Your task to perform on an android device: clear all cookies in the chrome app Image 0: 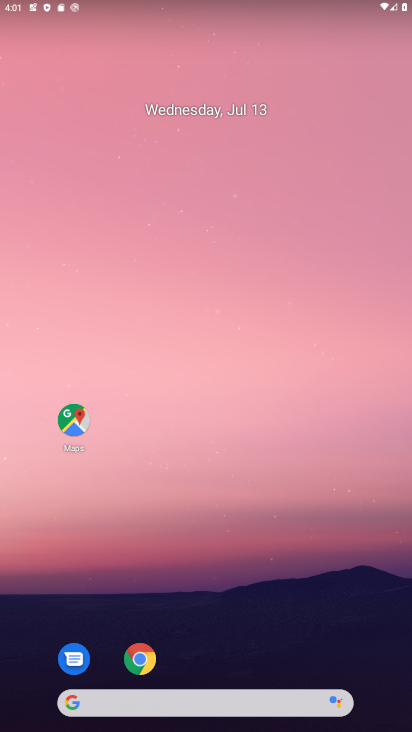
Step 0: press home button
Your task to perform on an android device: clear all cookies in the chrome app Image 1: 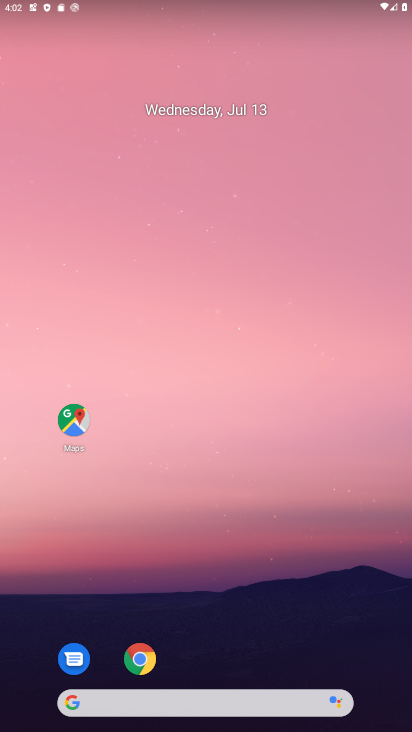
Step 1: press home button
Your task to perform on an android device: clear all cookies in the chrome app Image 2: 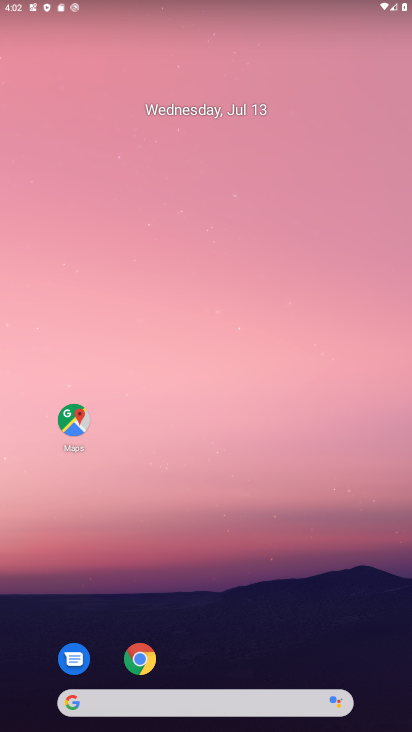
Step 2: click (139, 656)
Your task to perform on an android device: clear all cookies in the chrome app Image 3: 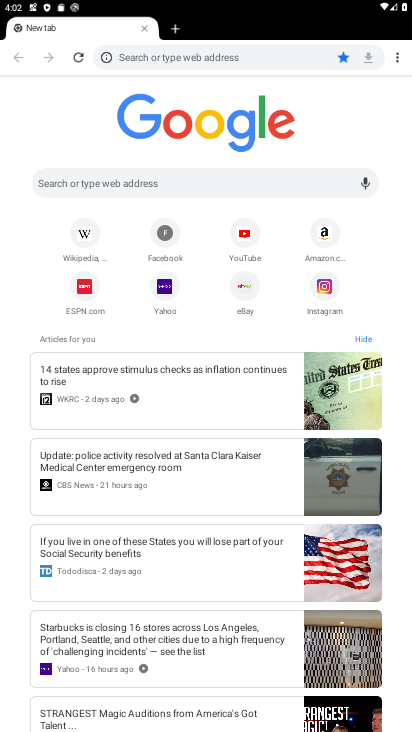
Step 3: click (398, 54)
Your task to perform on an android device: clear all cookies in the chrome app Image 4: 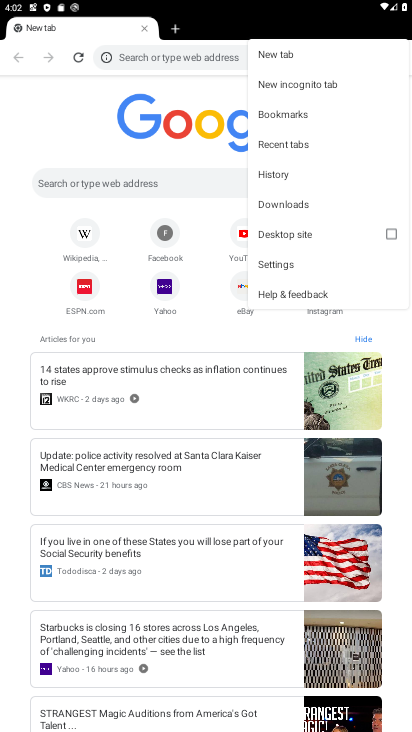
Step 4: click (290, 173)
Your task to perform on an android device: clear all cookies in the chrome app Image 5: 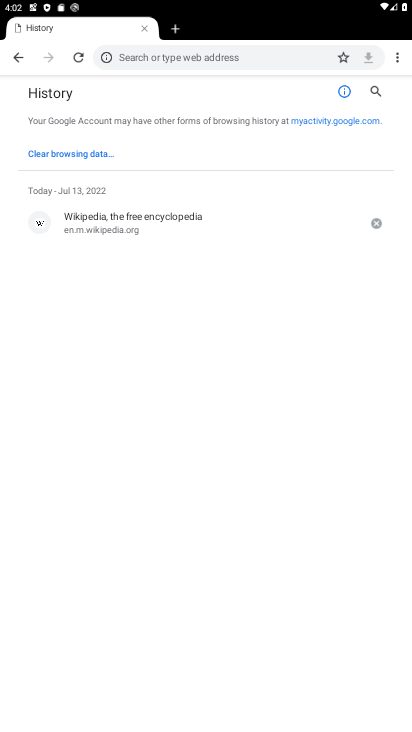
Step 5: click (64, 150)
Your task to perform on an android device: clear all cookies in the chrome app Image 6: 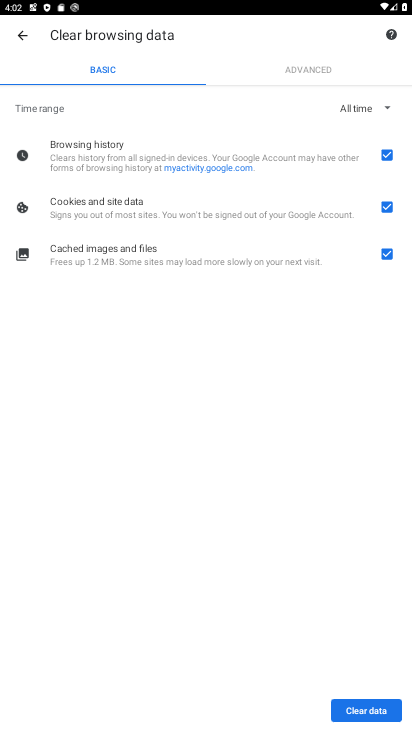
Step 6: click (364, 716)
Your task to perform on an android device: clear all cookies in the chrome app Image 7: 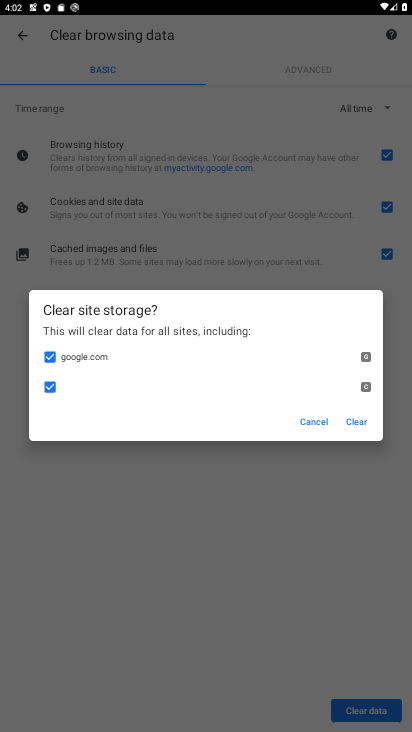
Step 7: click (345, 421)
Your task to perform on an android device: clear all cookies in the chrome app Image 8: 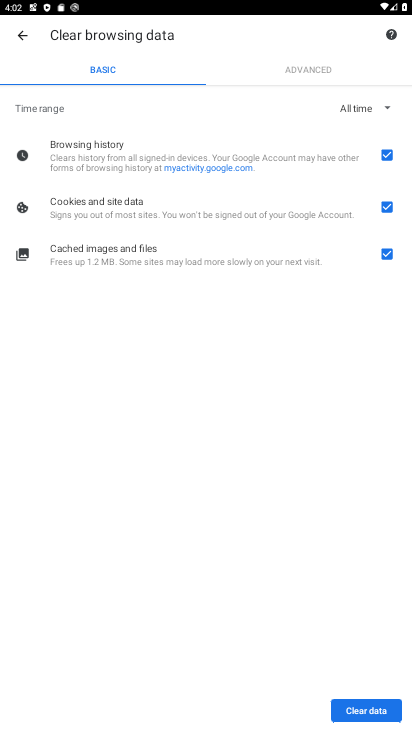
Step 8: task complete